Your task to perform on an android device: Set the phone to "Do not disturb". Image 0: 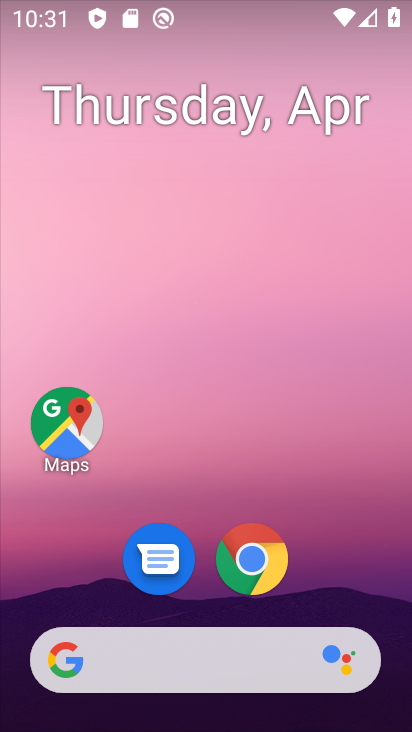
Step 0: drag from (154, 699) to (168, 134)
Your task to perform on an android device: Set the phone to "Do not disturb". Image 1: 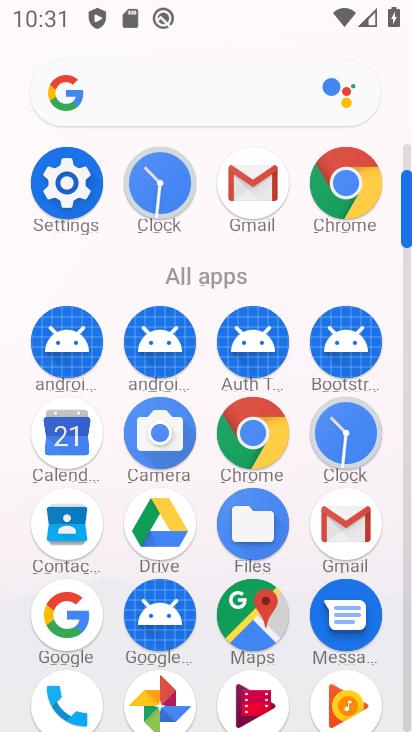
Step 1: click (56, 181)
Your task to perform on an android device: Set the phone to "Do not disturb". Image 2: 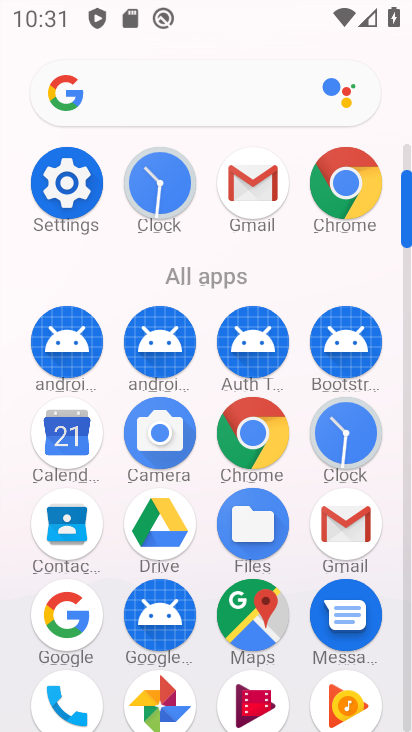
Step 2: click (82, 184)
Your task to perform on an android device: Set the phone to "Do not disturb". Image 3: 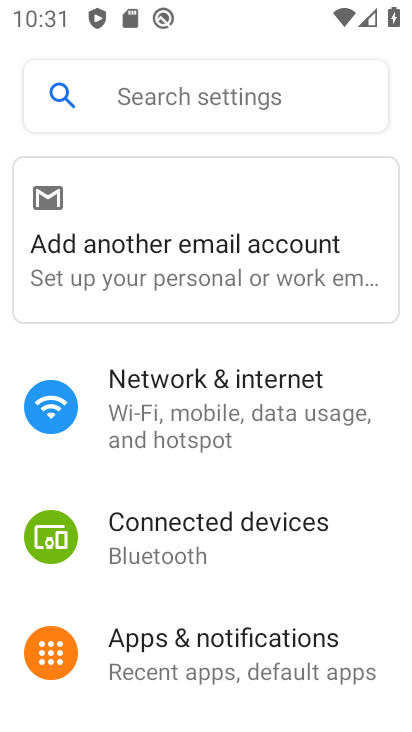
Step 3: click (208, 115)
Your task to perform on an android device: Set the phone to "Do not disturb". Image 4: 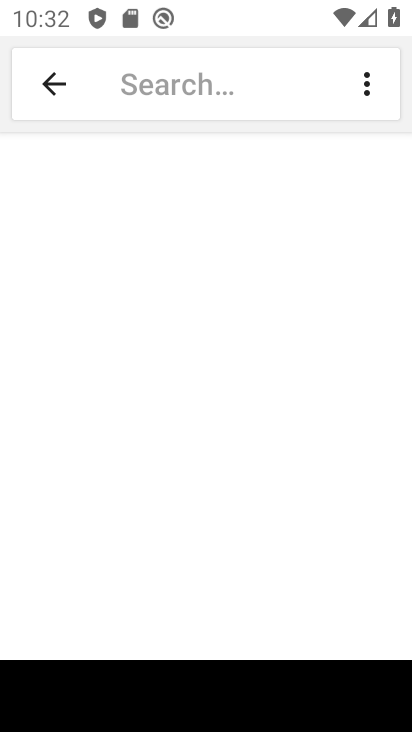
Step 4: click (171, 73)
Your task to perform on an android device: Set the phone to "Do not disturb". Image 5: 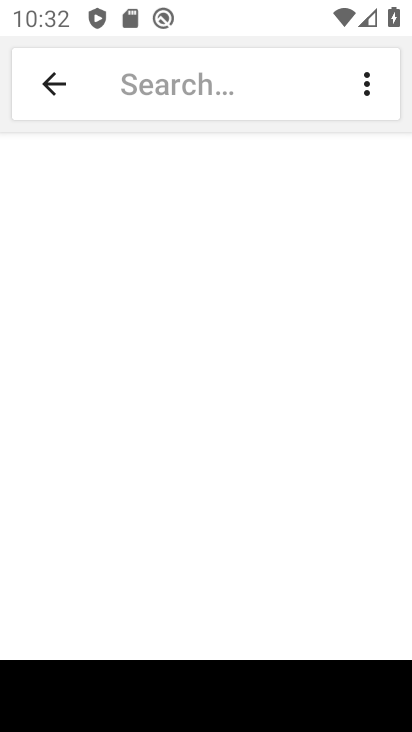
Step 5: click (393, 698)
Your task to perform on an android device: Set the phone to "Do not disturb". Image 6: 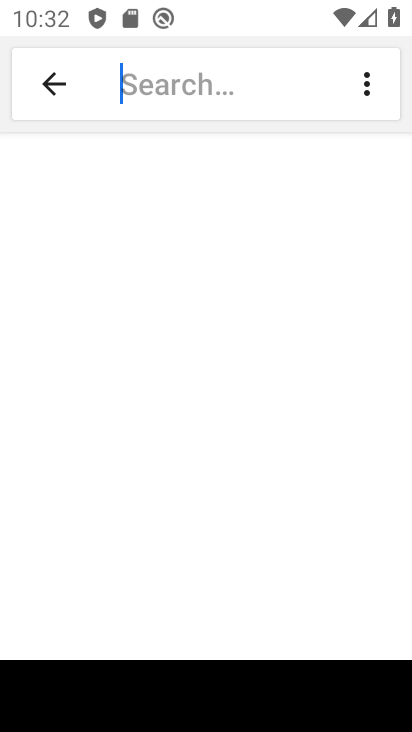
Step 6: drag from (393, 698) to (401, 511)
Your task to perform on an android device: Set the phone to "Do not disturb". Image 7: 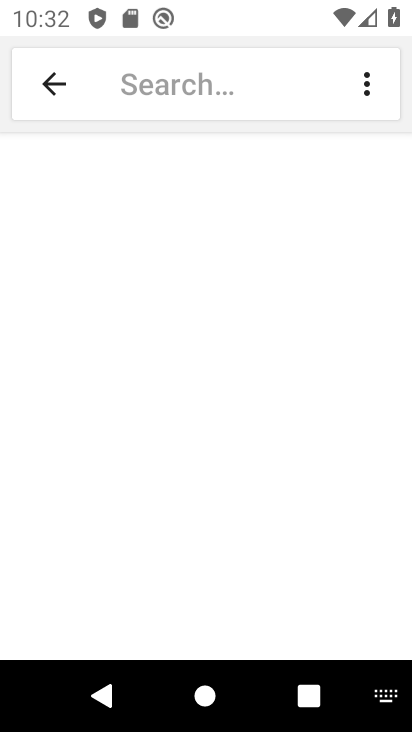
Step 7: click (380, 715)
Your task to perform on an android device: Set the phone to "Do not disturb". Image 8: 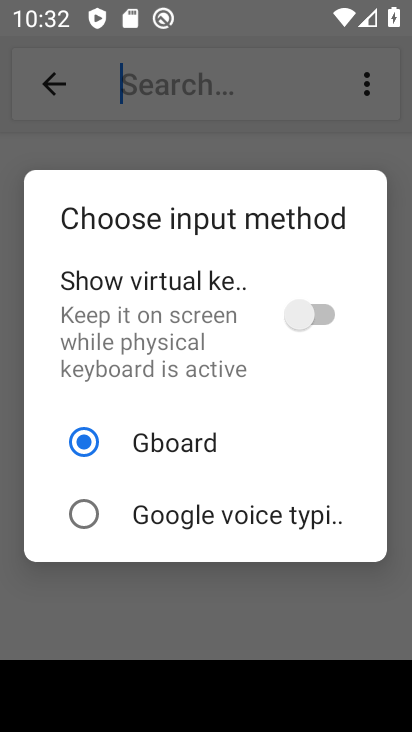
Step 8: click (318, 312)
Your task to perform on an android device: Set the phone to "Do not disturb". Image 9: 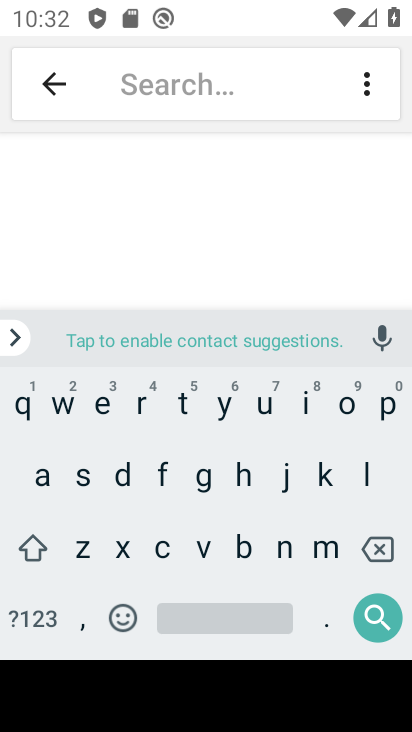
Step 9: click (133, 476)
Your task to perform on an android device: Set the phone to "Do not disturb". Image 10: 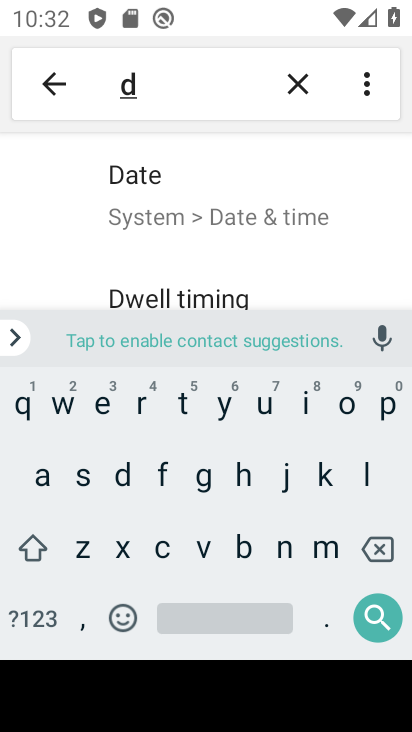
Step 10: click (281, 548)
Your task to perform on an android device: Set the phone to "Do not disturb". Image 11: 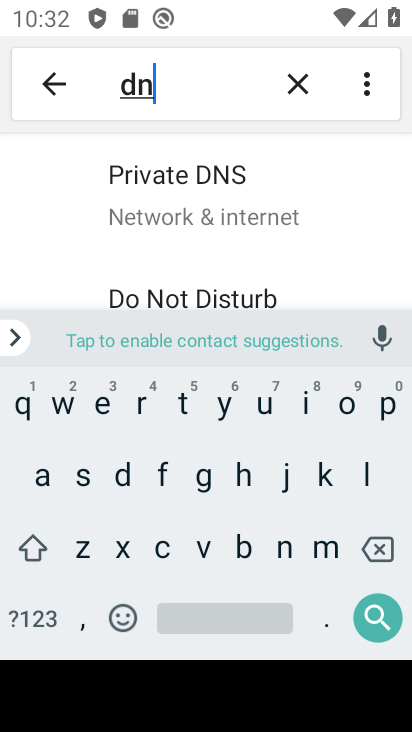
Step 11: click (122, 468)
Your task to perform on an android device: Set the phone to "Do not disturb". Image 12: 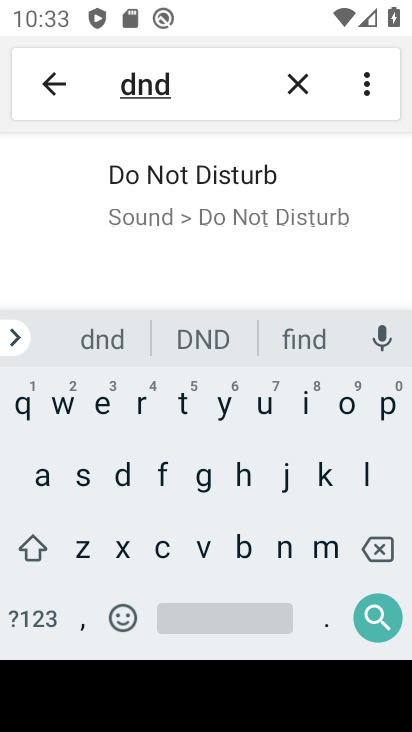
Step 12: click (185, 201)
Your task to perform on an android device: Set the phone to "Do not disturb". Image 13: 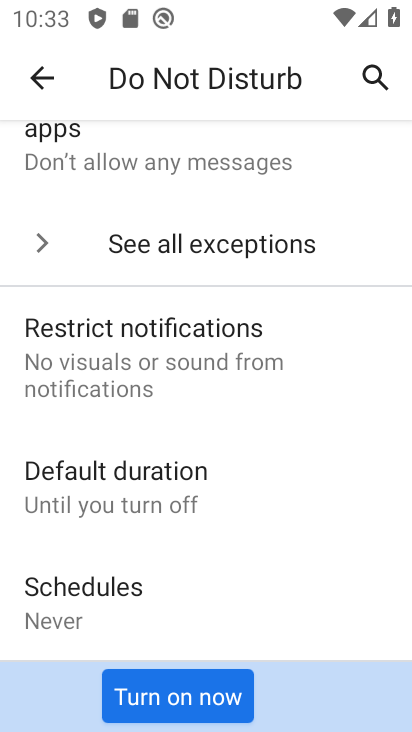
Step 13: click (192, 690)
Your task to perform on an android device: Set the phone to "Do not disturb". Image 14: 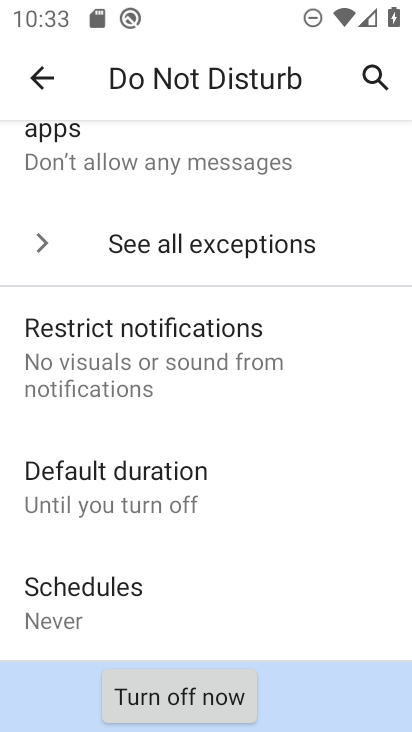
Step 14: task complete